Your task to perform on an android device: Show me recent news Image 0: 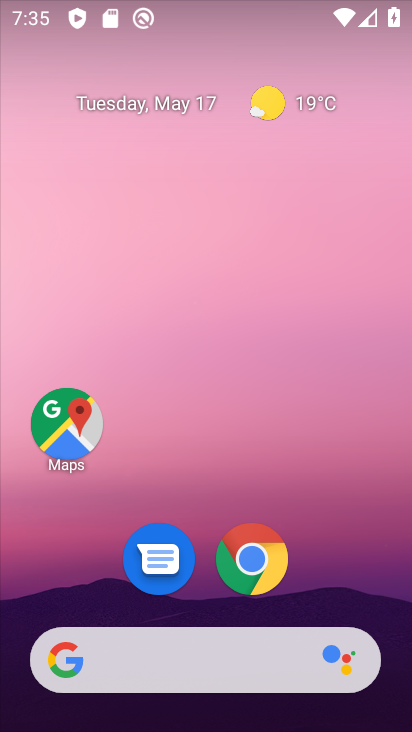
Step 0: drag from (233, 585) to (263, 64)
Your task to perform on an android device: Show me recent news Image 1: 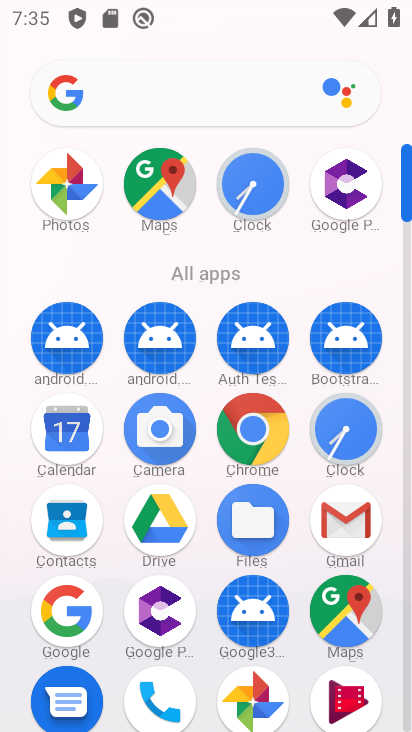
Step 1: click (152, 113)
Your task to perform on an android device: Show me recent news Image 2: 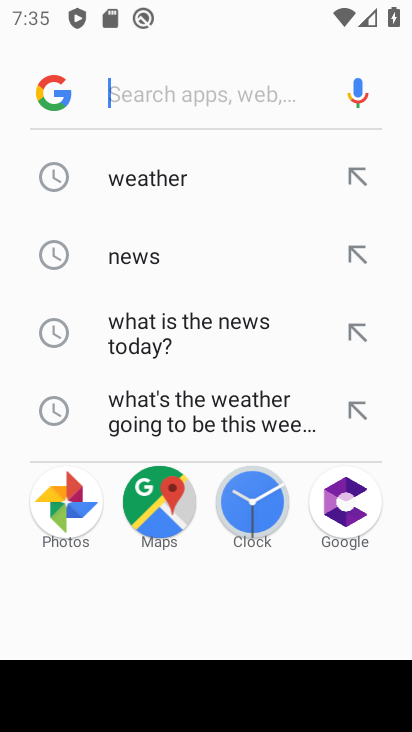
Step 2: type "recent news"
Your task to perform on an android device: Show me recent news Image 3: 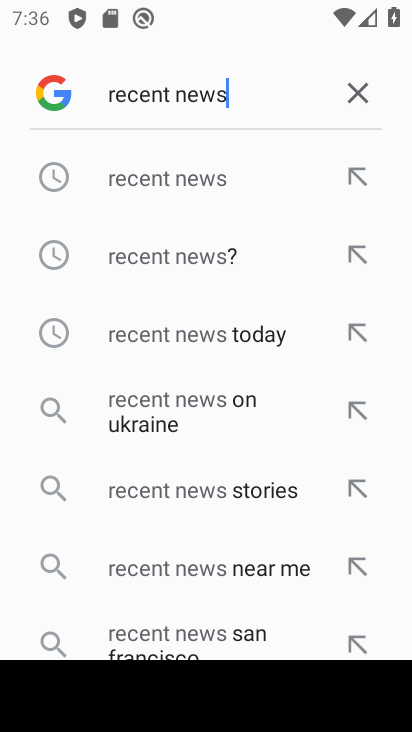
Step 3: click (144, 189)
Your task to perform on an android device: Show me recent news Image 4: 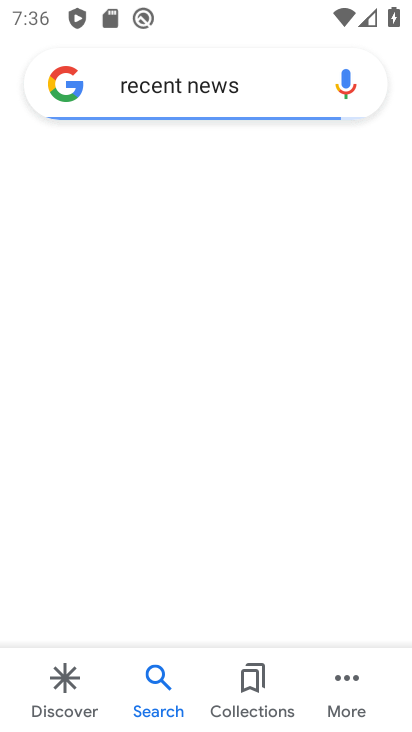
Step 4: task complete